Your task to perform on an android device: Go to Google maps Image 0: 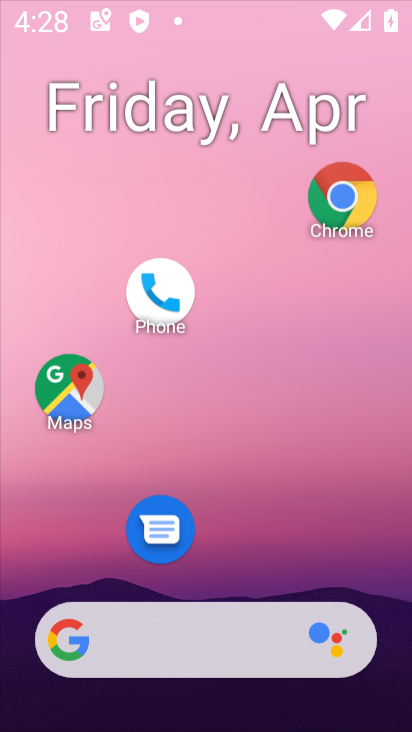
Step 0: click (268, 62)
Your task to perform on an android device: Go to Google maps Image 1: 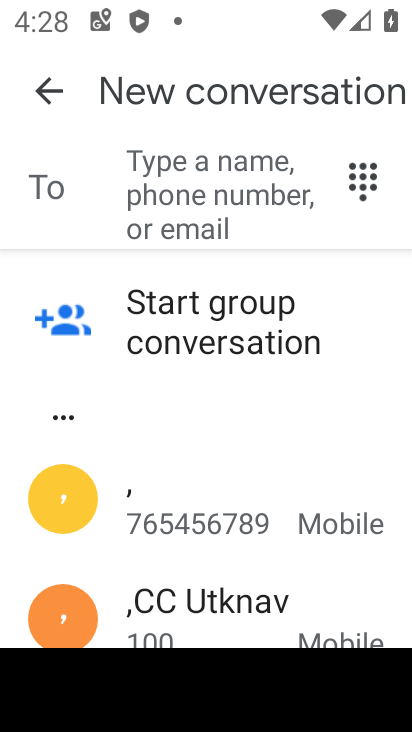
Step 1: press home button
Your task to perform on an android device: Go to Google maps Image 2: 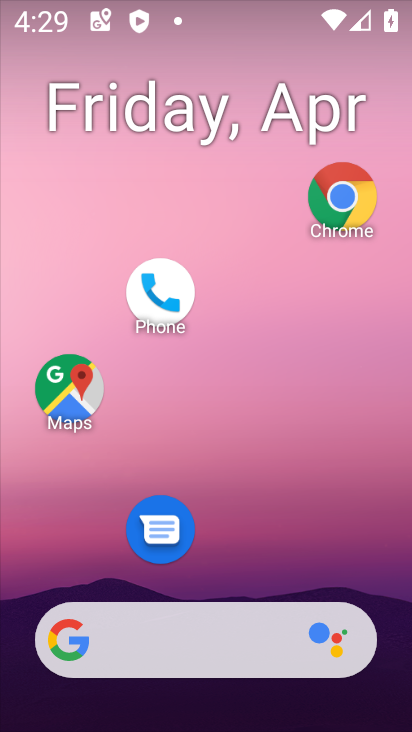
Step 2: click (68, 387)
Your task to perform on an android device: Go to Google maps Image 3: 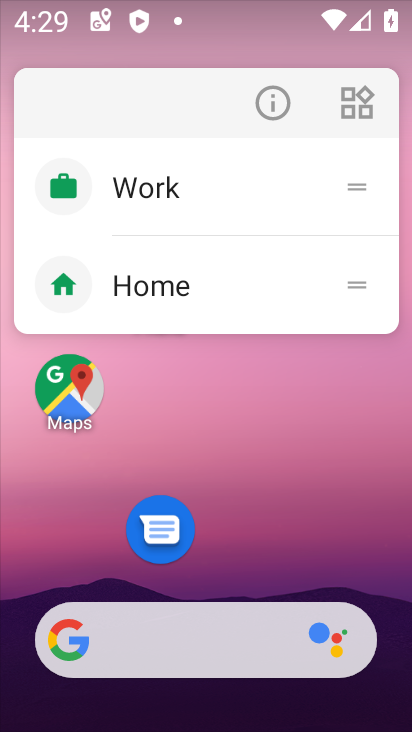
Step 3: click (72, 384)
Your task to perform on an android device: Go to Google maps Image 4: 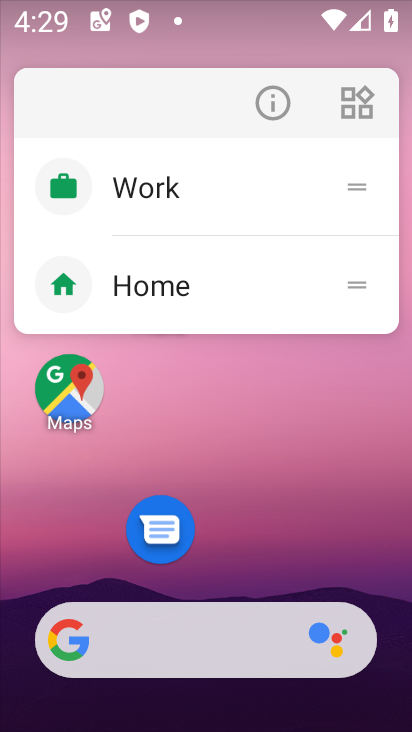
Step 4: click (239, 432)
Your task to perform on an android device: Go to Google maps Image 5: 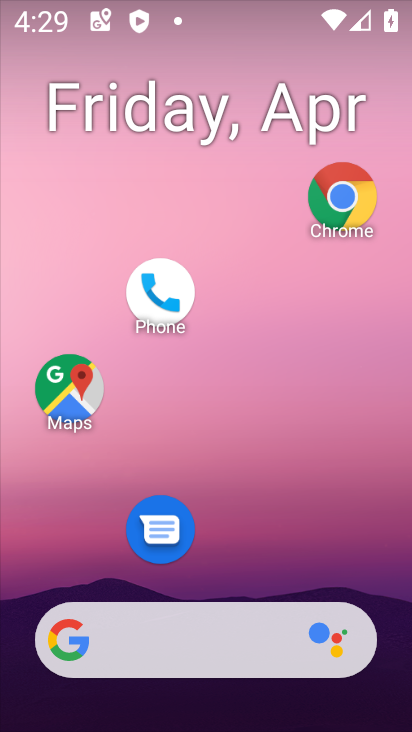
Step 5: drag from (237, 572) to (244, 202)
Your task to perform on an android device: Go to Google maps Image 6: 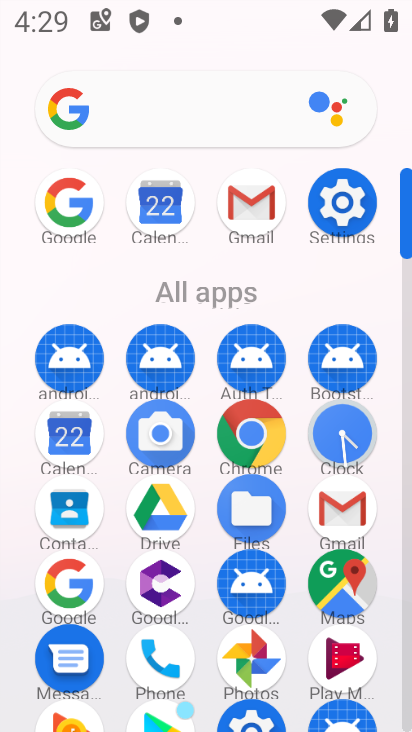
Step 6: click (343, 582)
Your task to perform on an android device: Go to Google maps Image 7: 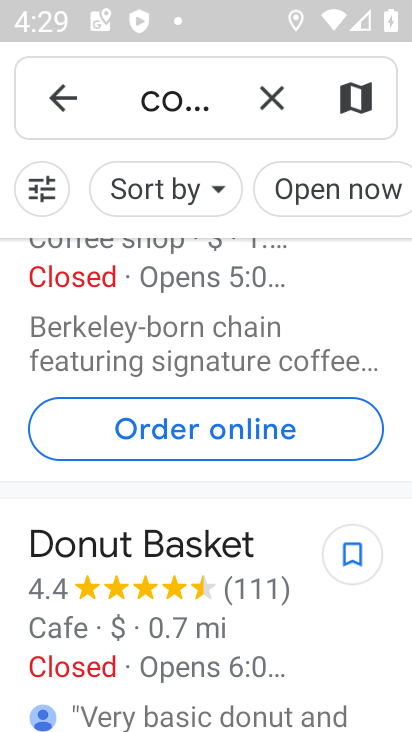
Step 7: click (47, 106)
Your task to perform on an android device: Go to Google maps Image 8: 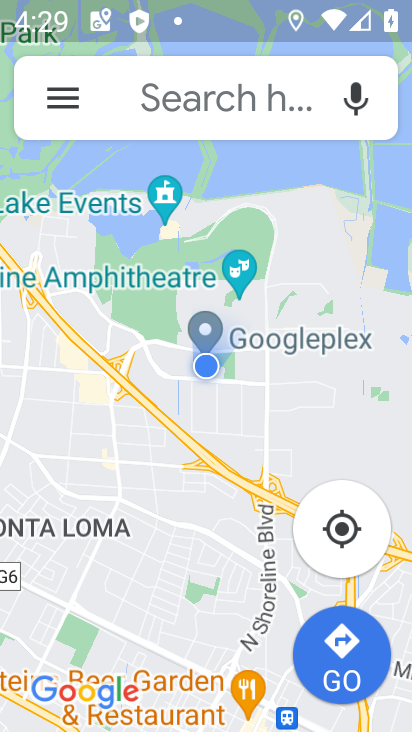
Step 8: click (345, 653)
Your task to perform on an android device: Go to Google maps Image 9: 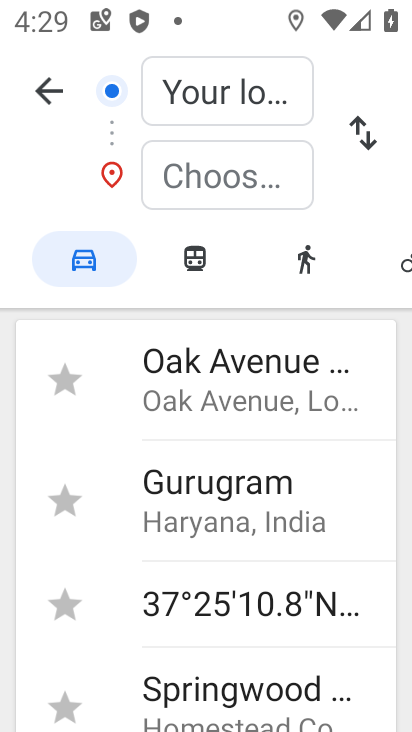
Step 9: task complete